Your task to perform on an android device: What's the weather going to be tomorrow? Image 0: 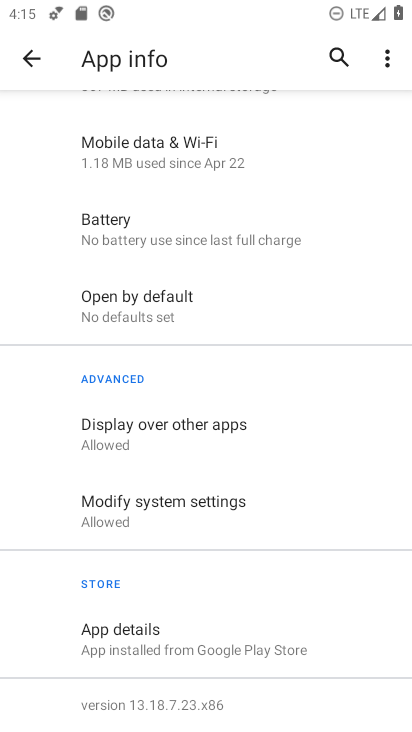
Step 0: press back button
Your task to perform on an android device: What's the weather going to be tomorrow? Image 1: 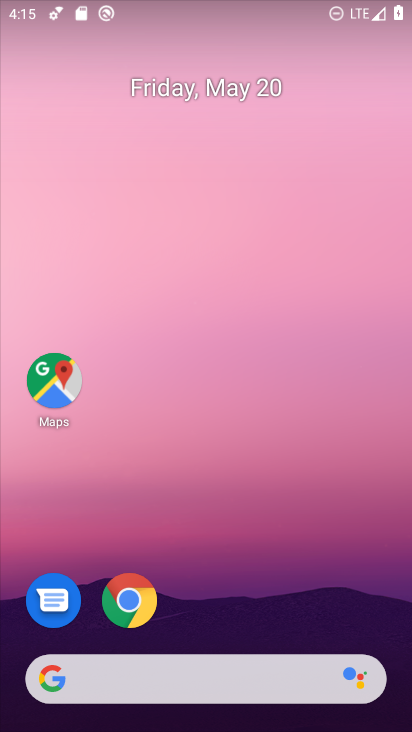
Step 1: click (143, 690)
Your task to perform on an android device: What's the weather going to be tomorrow? Image 2: 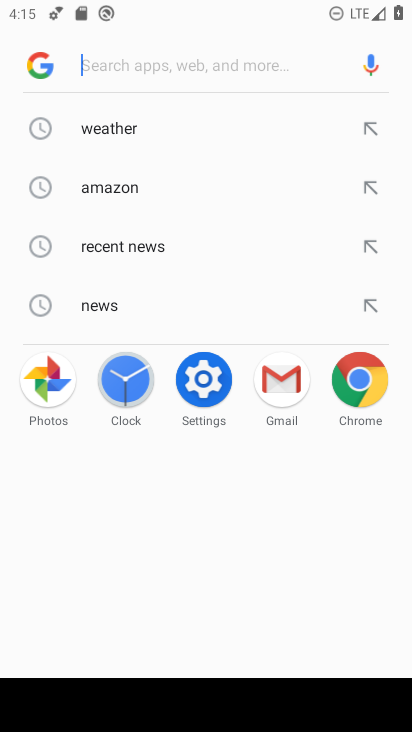
Step 2: click (102, 126)
Your task to perform on an android device: What's the weather going to be tomorrow? Image 3: 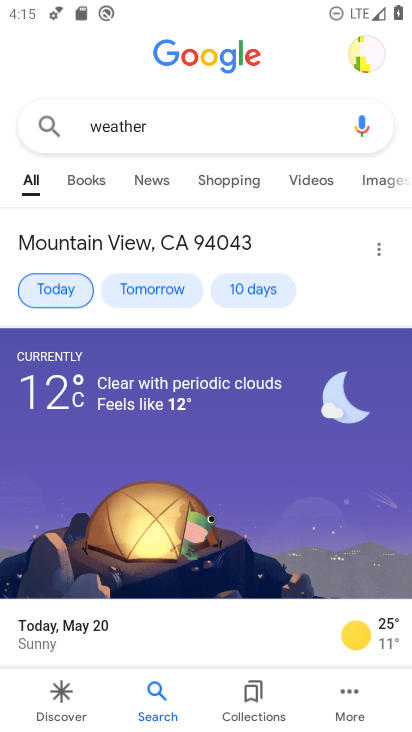
Step 3: drag from (171, 296) to (97, 296)
Your task to perform on an android device: What's the weather going to be tomorrow? Image 4: 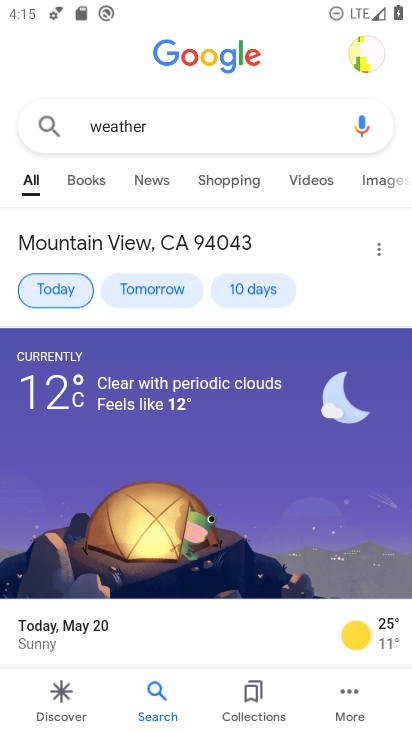
Step 4: click (154, 285)
Your task to perform on an android device: What's the weather going to be tomorrow? Image 5: 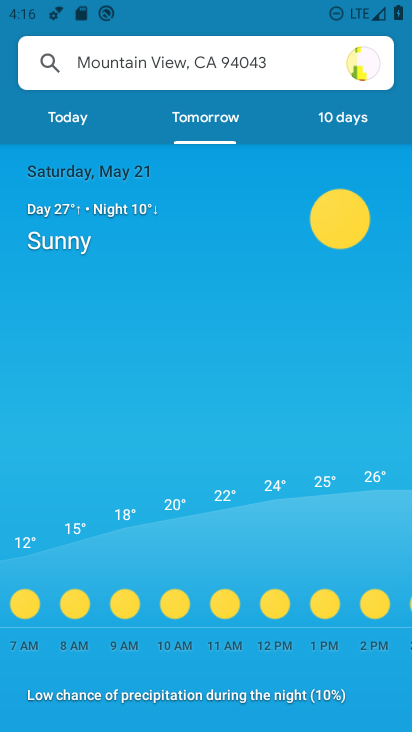
Step 5: task complete